Your task to perform on an android device: set the stopwatch Image 0: 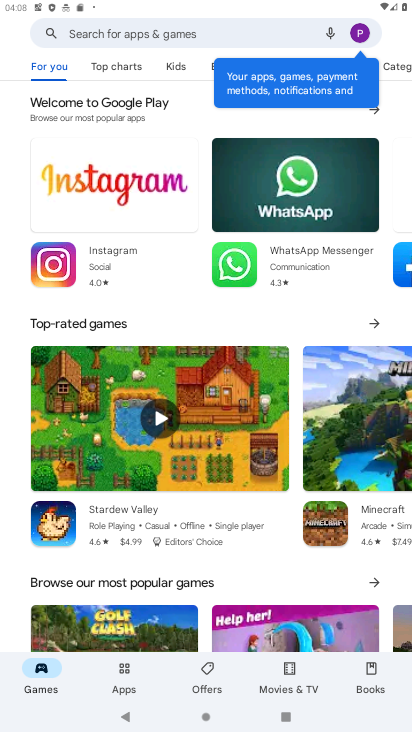
Step 0: press home button
Your task to perform on an android device: set the stopwatch Image 1: 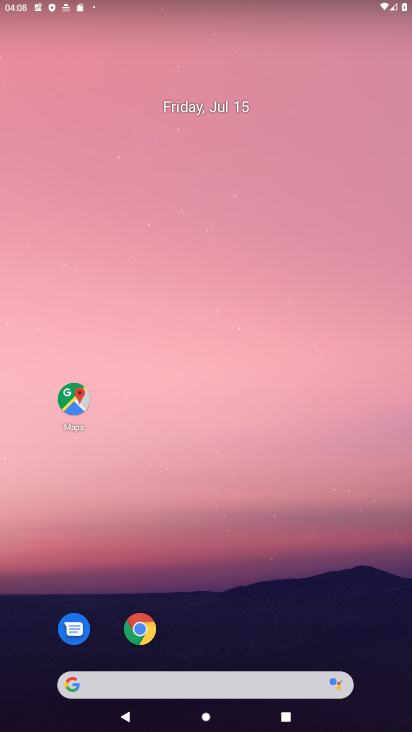
Step 1: drag from (257, 604) to (266, 119)
Your task to perform on an android device: set the stopwatch Image 2: 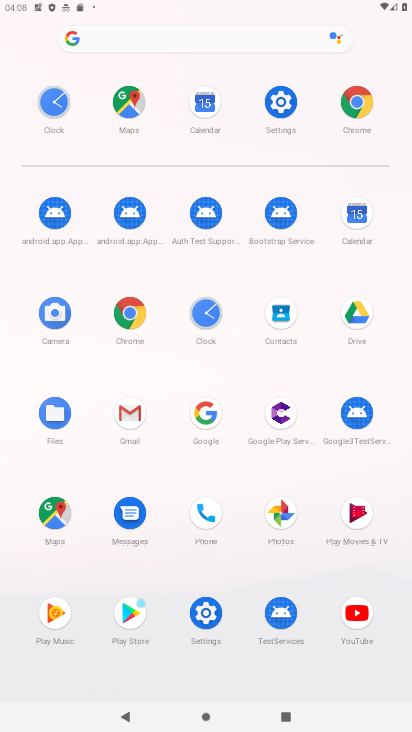
Step 2: click (205, 314)
Your task to perform on an android device: set the stopwatch Image 3: 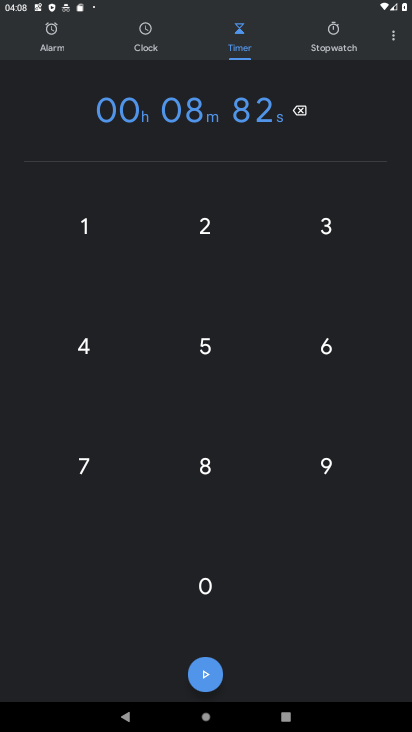
Step 3: click (341, 38)
Your task to perform on an android device: set the stopwatch Image 4: 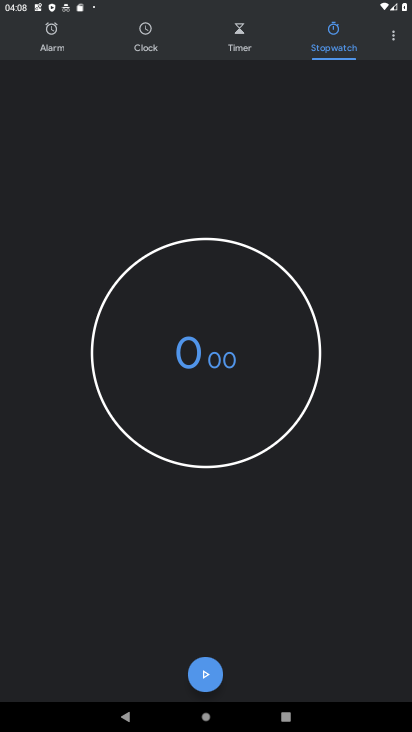
Step 4: click (210, 666)
Your task to perform on an android device: set the stopwatch Image 5: 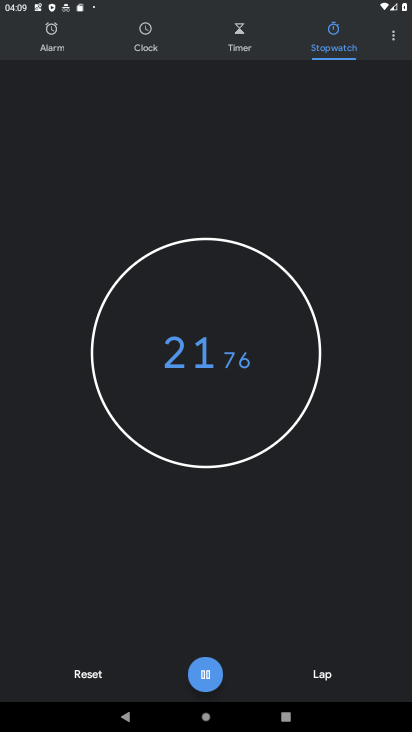
Step 5: task complete